Your task to perform on an android device: Open accessibility settings Image 0: 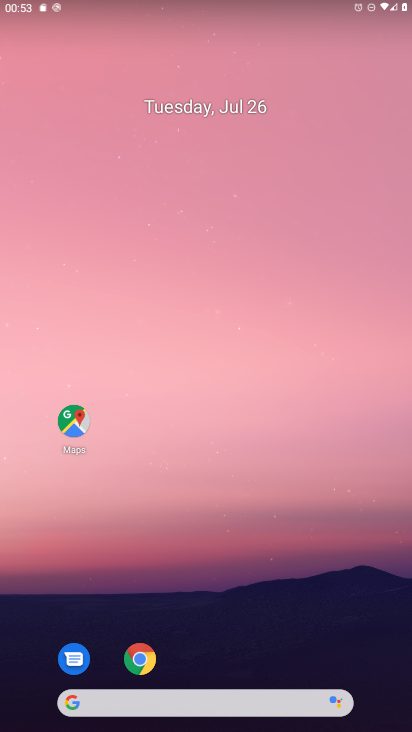
Step 0: drag from (288, 603) to (334, 133)
Your task to perform on an android device: Open accessibility settings Image 1: 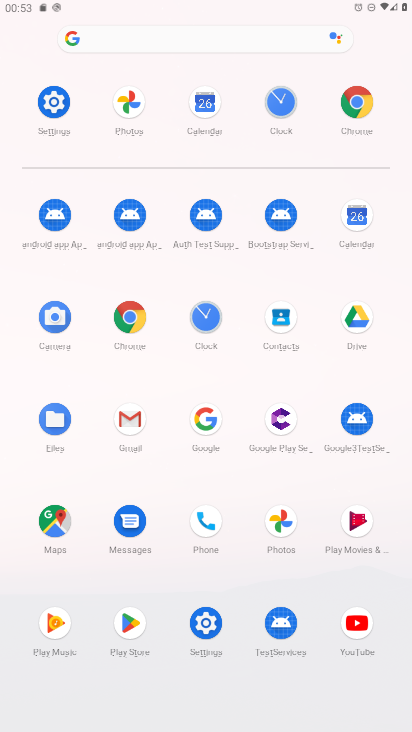
Step 1: click (205, 614)
Your task to perform on an android device: Open accessibility settings Image 2: 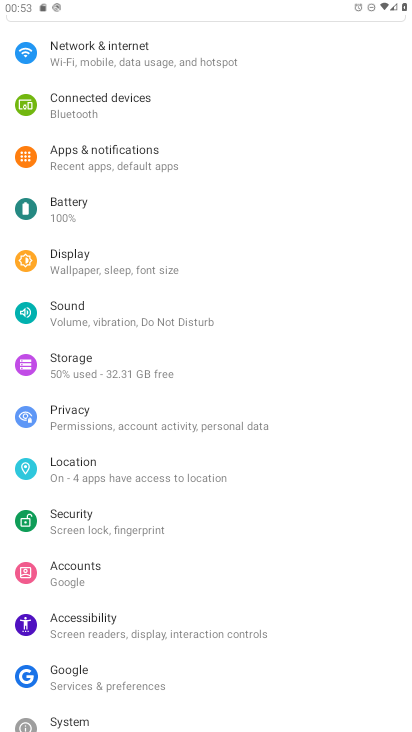
Step 2: click (102, 614)
Your task to perform on an android device: Open accessibility settings Image 3: 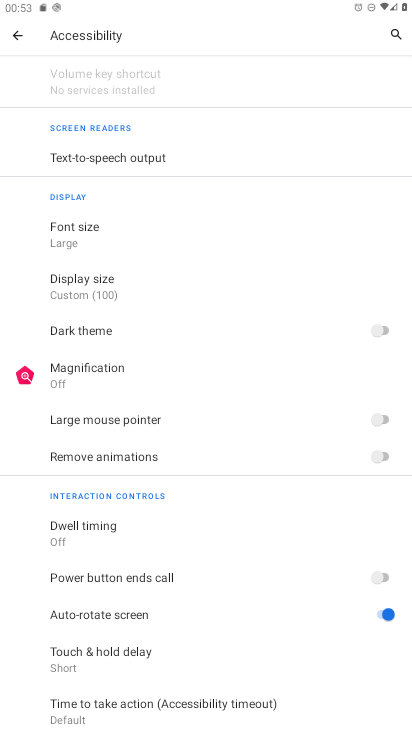
Step 3: task complete